Your task to perform on an android device: Open Youtube and go to "Your channel" Image 0: 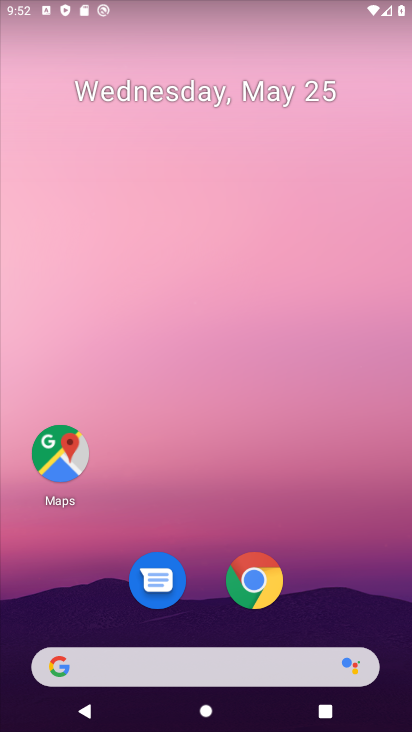
Step 0: press home button
Your task to perform on an android device: Open Youtube and go to "Your channel" Image 1: 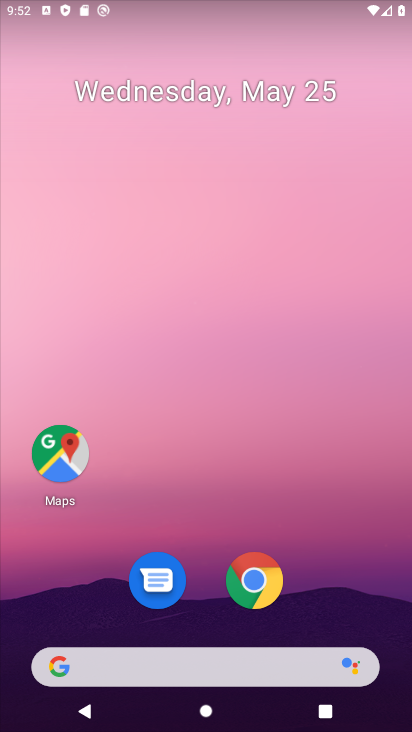
Step 1: drag from (37, 484) to (185, 78)
Your task to perform on an android device: Open Youtube and go to "Your channel" Image 2: 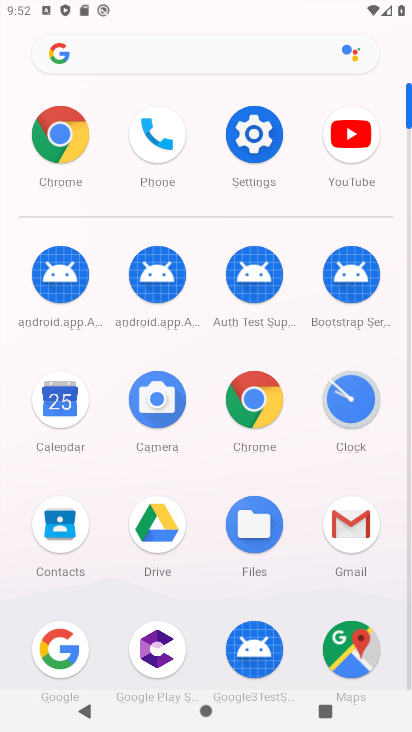
Step 2: click (350, 136)
Your task to perform on an android device: Open Youtube and go to "Your channel" Image 3: 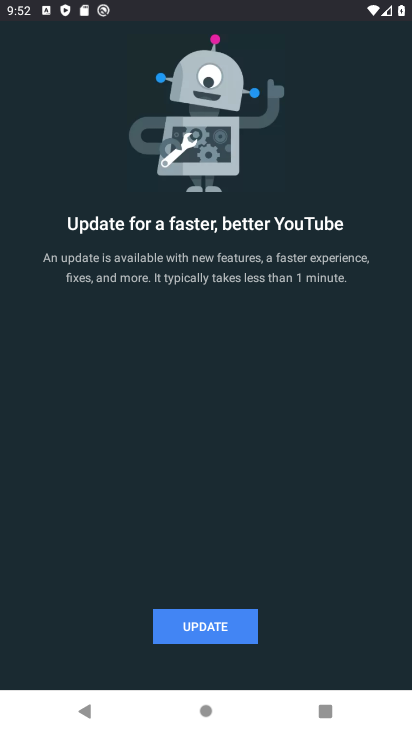
Step 3: task complete